Your task to perform on an android device: toggle notification dots Image 0: 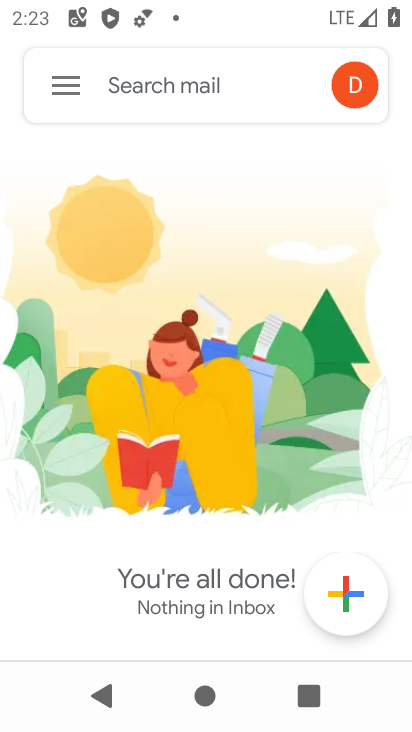
Step 0: press back button
Your task to perform on an android device: toggle notification dots Image 1: 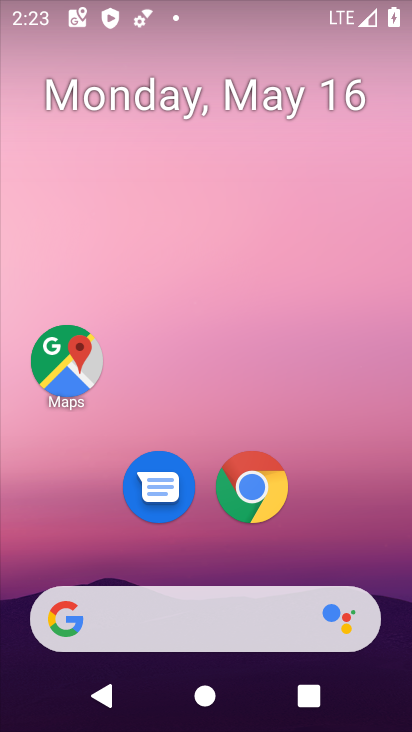
Step 1: drag from (326, 513) to (277, 57)
Your task to perform on an android device: toggle notification dots Image 2: 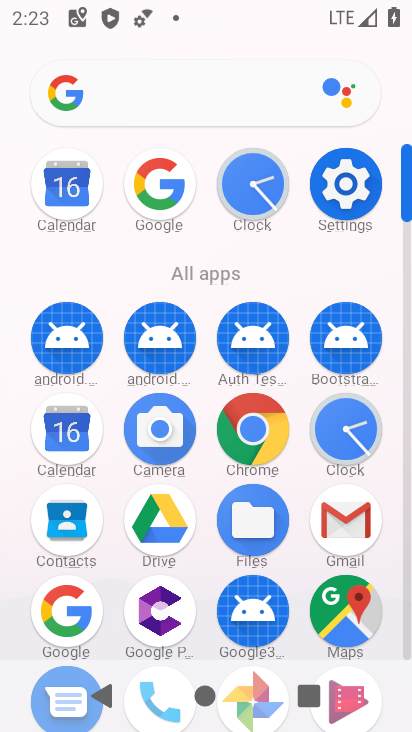
Step 2: click (346, 182)
Your task to perform on an android device: toggle notification dots Image 3: 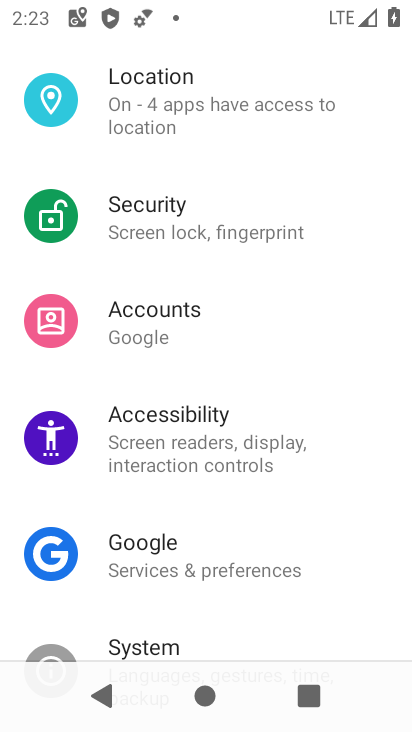
Step 3: drag from (201, 241) to (229, 361)
Your task to perform on an android device: toggle notification dots Image 4: 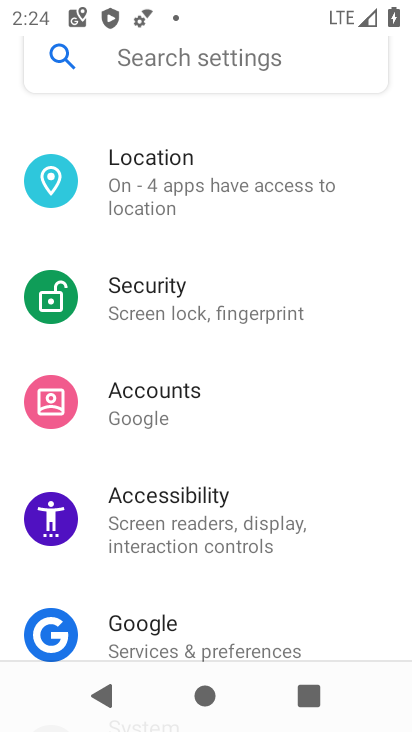
Step 4: drag from (218, 154) to (257, 375)
Your task to perform on an android device: toggle notification dots Image 5: 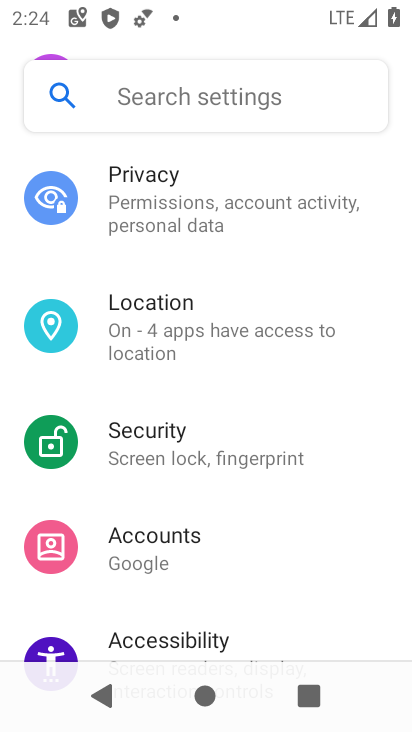
Step 5: drag from (237, 170) to (292, 386)
Your task to perform on an android device: toggle notification dots Image 6: 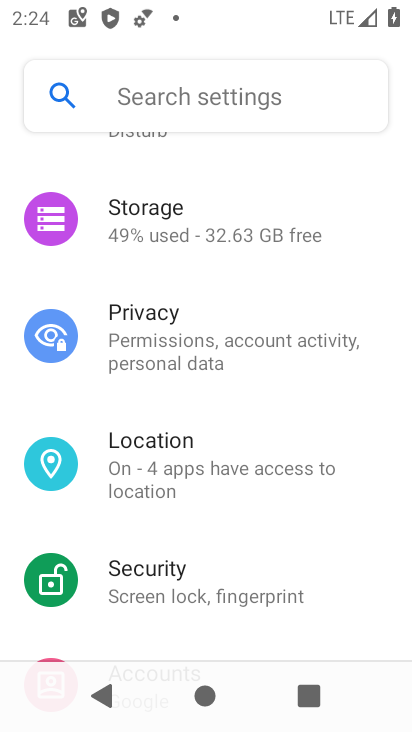
Step 6: drag from (216, 197) to (273, 383)
Your task to perform on an android device: toggle notification dots Image 7: 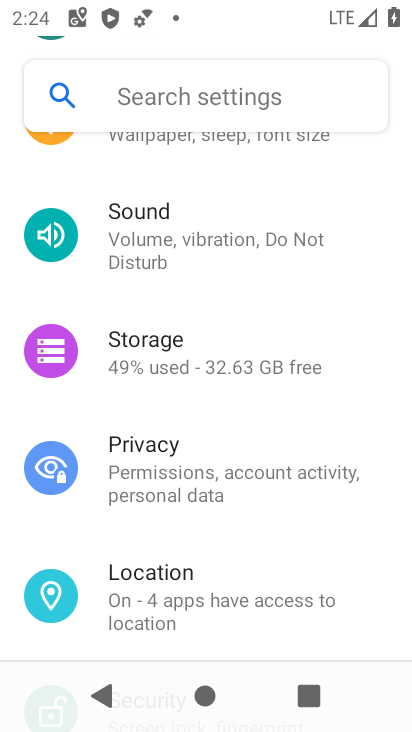
Step 7: drag from (257, 303) to (235, 508)
Your task to perform on an android device: toggle notification dots Image 8: 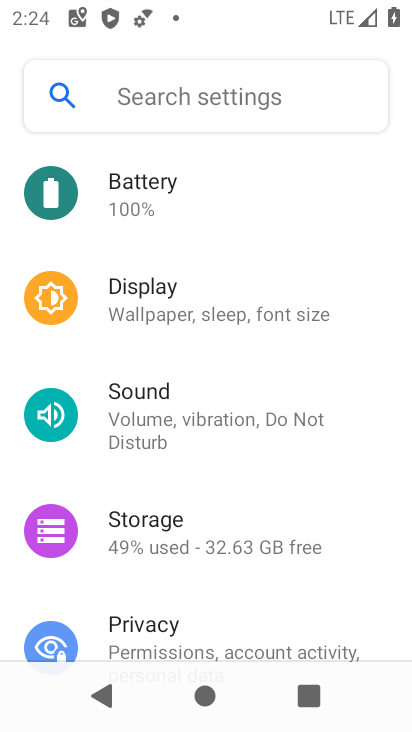
Step 8: drag from (244, 270) to (283, 427)
Your task to perform on an android device: toggle notification dots Image 9: 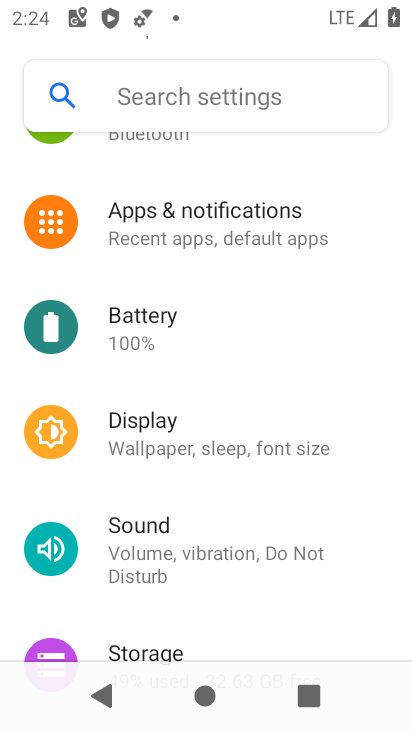
Step 9: click (215, 218)
Your task to perform on an android device: toggle notification dots Image 10: 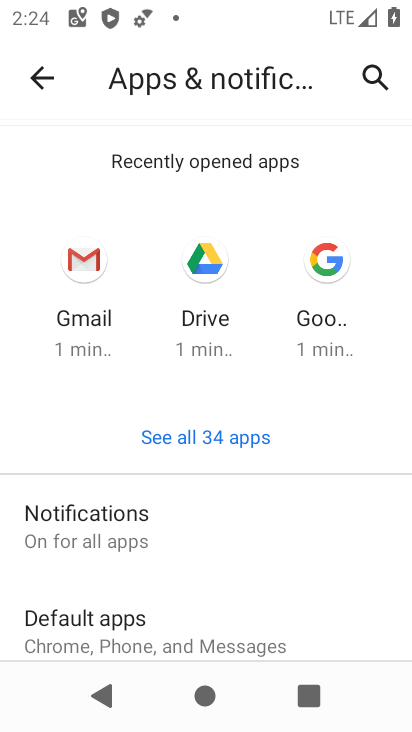
Step 10: click (117, 529)
Your task to perform on an android device: toggle notification dots Image 11: 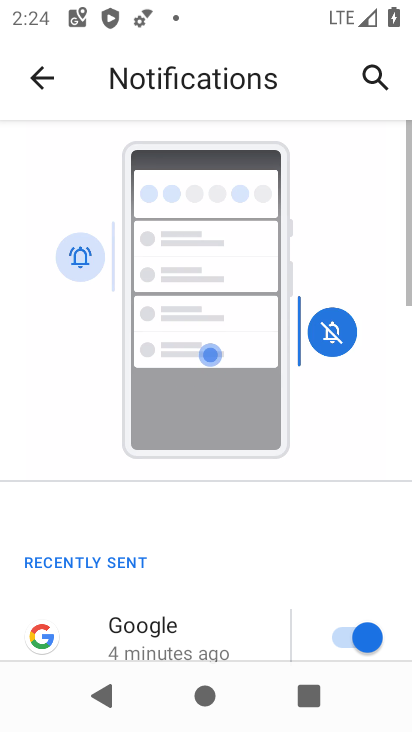
Step 11: drag from (205, 562) to (228, 344)
Your task to perform on an android device: toggle notification dots Image 12: 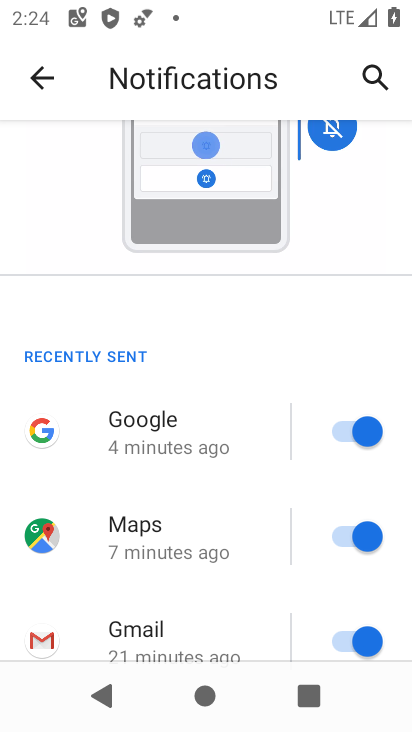
Step 12: drag from (200, 501) to (230, 327)
Your task to perform on an android device: toggle notification dots Image 13: 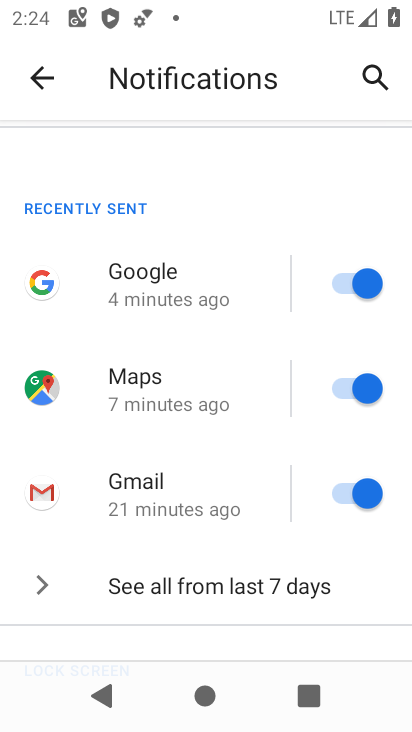
Step 13: drag from (214, 457) to (267, 301)
Your task to perform on an android device: toggle notification dots Image 14: 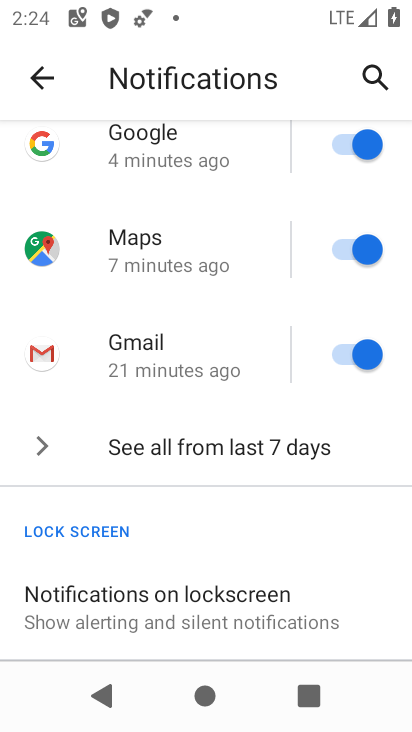
Step 14: drag from (216, 517) to (223, 349)
Your task to perform on an android device: toggle notification dots Image 15: 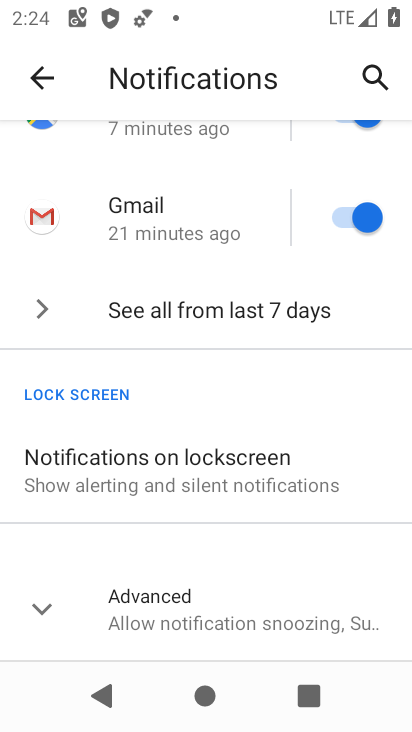
Step 15: click (205, 623)
Your task to perform on an android device: toggle notification dots Image 16: 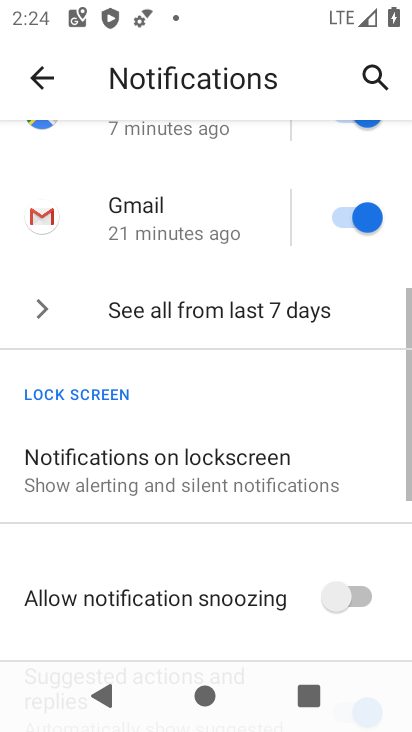
Step 16: drag from (209, 625) to (229, 436)
Your task to perform on an android device: toggle notification dots Image 17: 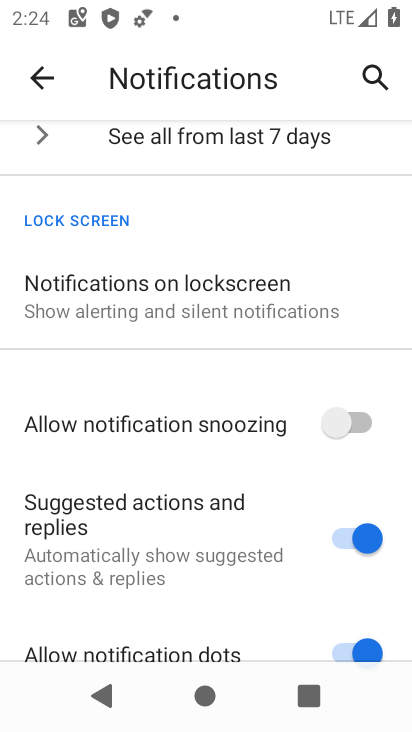
Step 17: drag from (230, 621) to (266, 457)
Your task to perform on an android device: toggle notification dots Image 18: 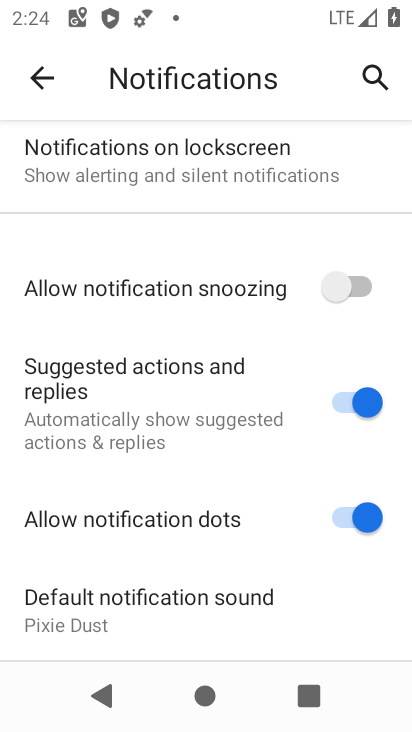
Step 18: click (345, 509)
Your task to perform on an android device: toggle notification dots Image 19: 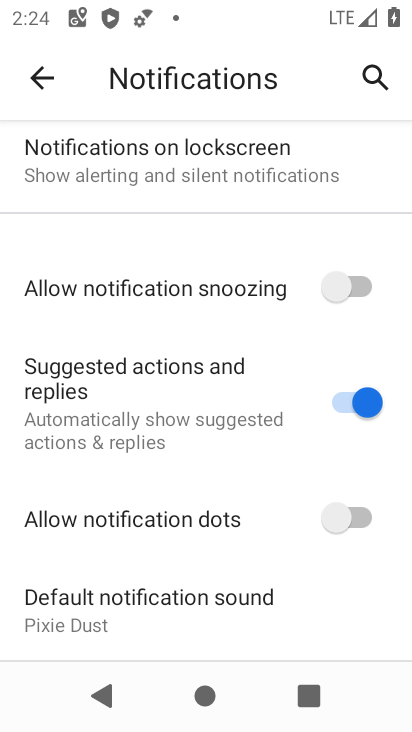
Step 19: task complete